Your task to perform on an android device: Show me popular videos on Youtube Image 0: 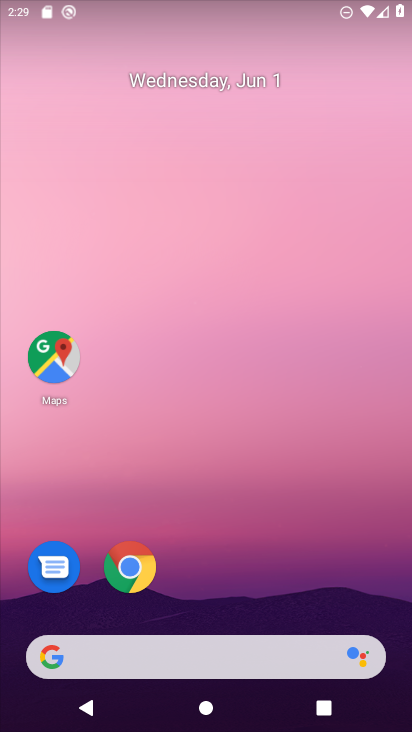
Step 0: drag from (176, 640) to (361, 154)
Your task to perform on an android device: Show me popular videos on Youtube Image 1: 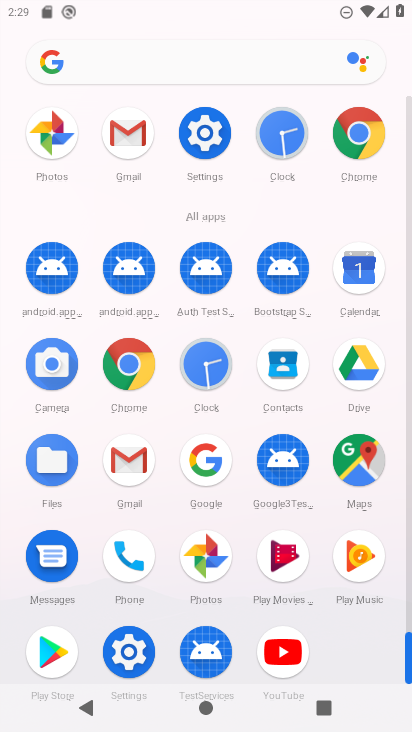
Step 1: click (274, 666)
Your task to perform on an android device: Show me popular videos on Youtube Image 2: 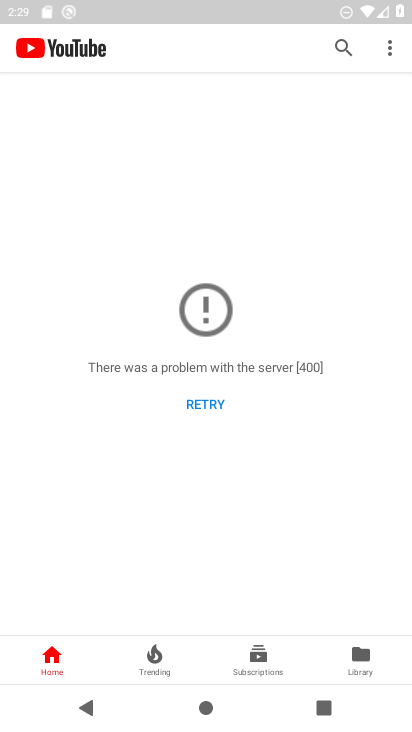
Step 2: click (355, 660)
Your task to perform on an android device: Show me popular videos on Youtube Image 3: 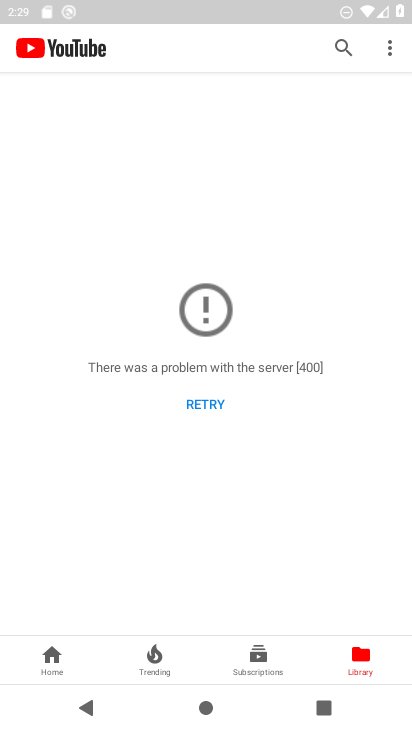
Step 3: task complete